Your task to perform on an android device: check out phone information Image 0: 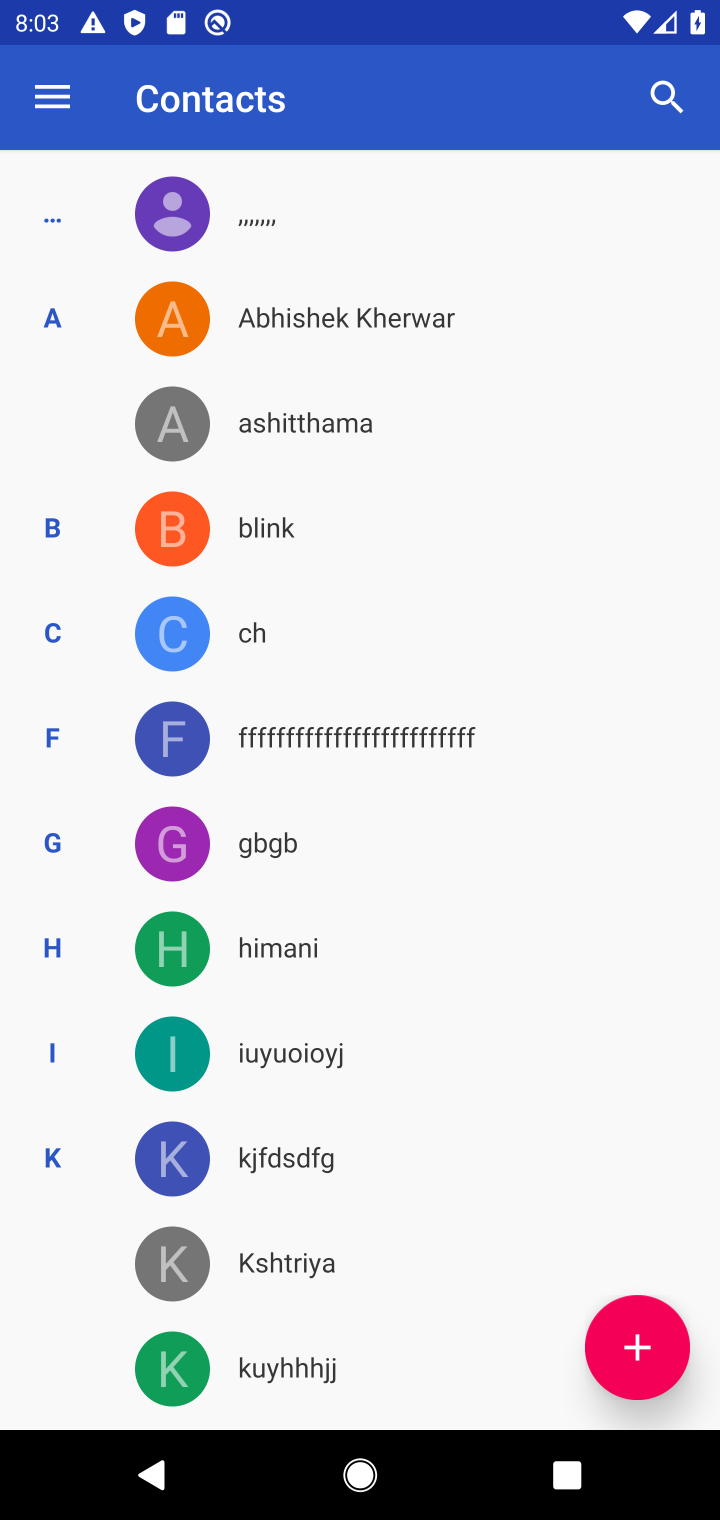
Step 0: press home button
Your task to perform on an android device: check out phone information Image 1: 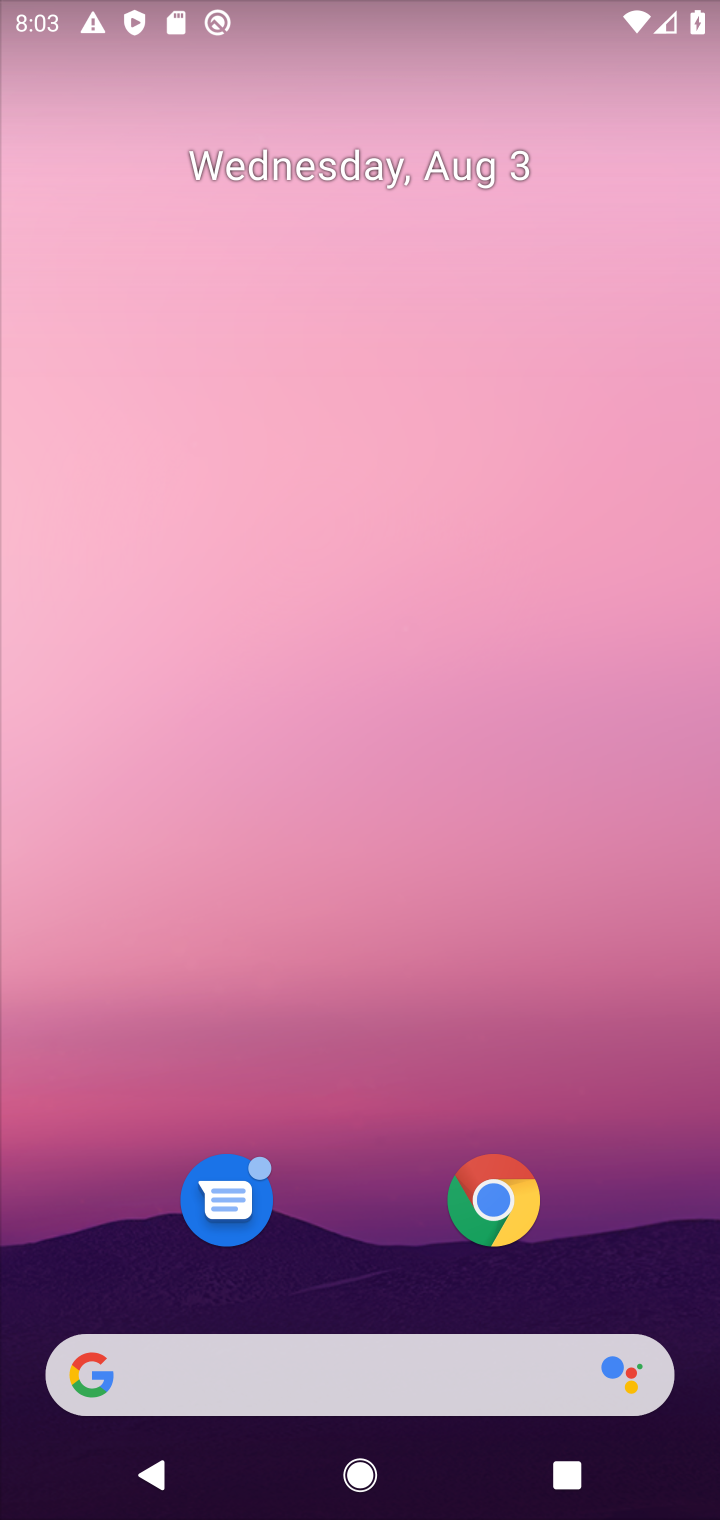
Step 1: drag from (639, 1262) to (516, 137)
Your task to perform on an android device: check out phone information Image 2: 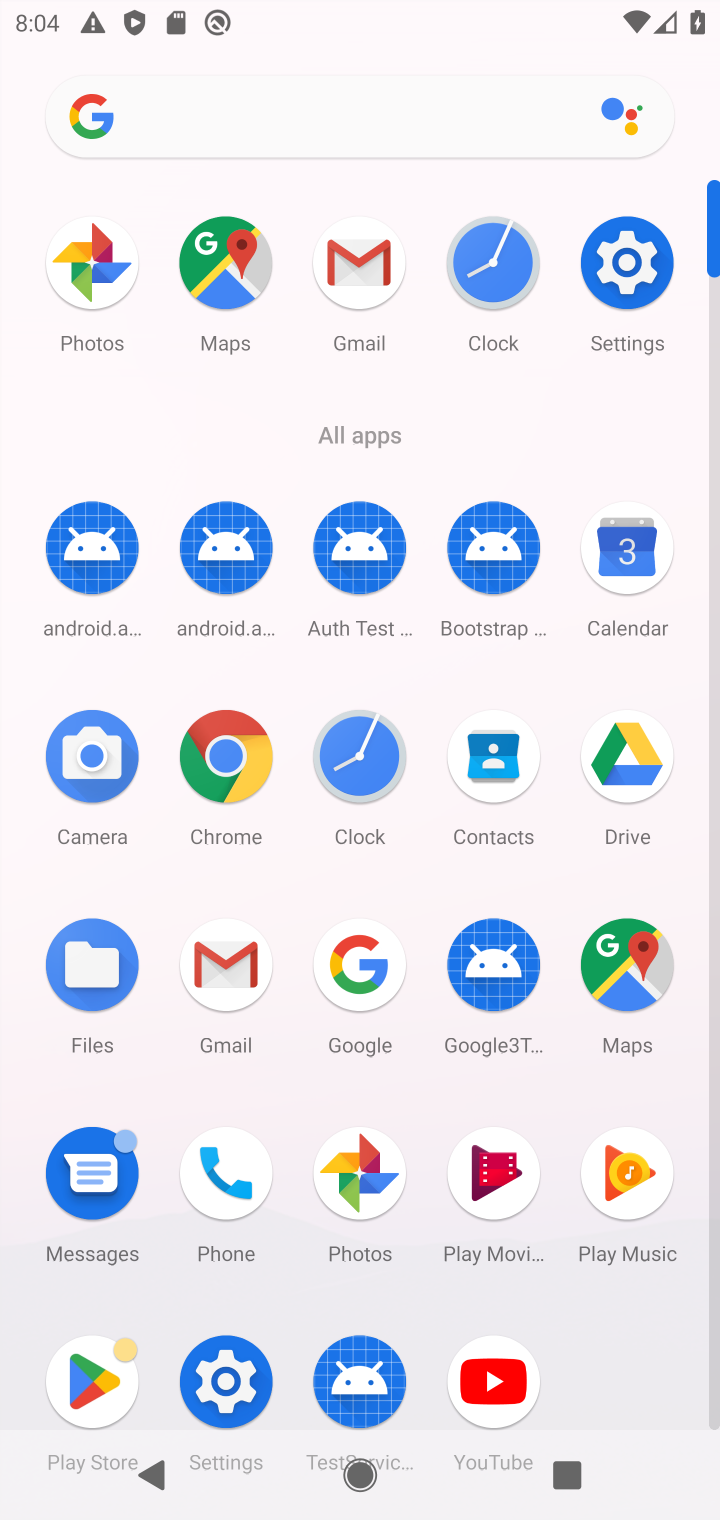
Step 2: click (228, 1381)
Your task to perform on an android device: check out phone information Image 3: 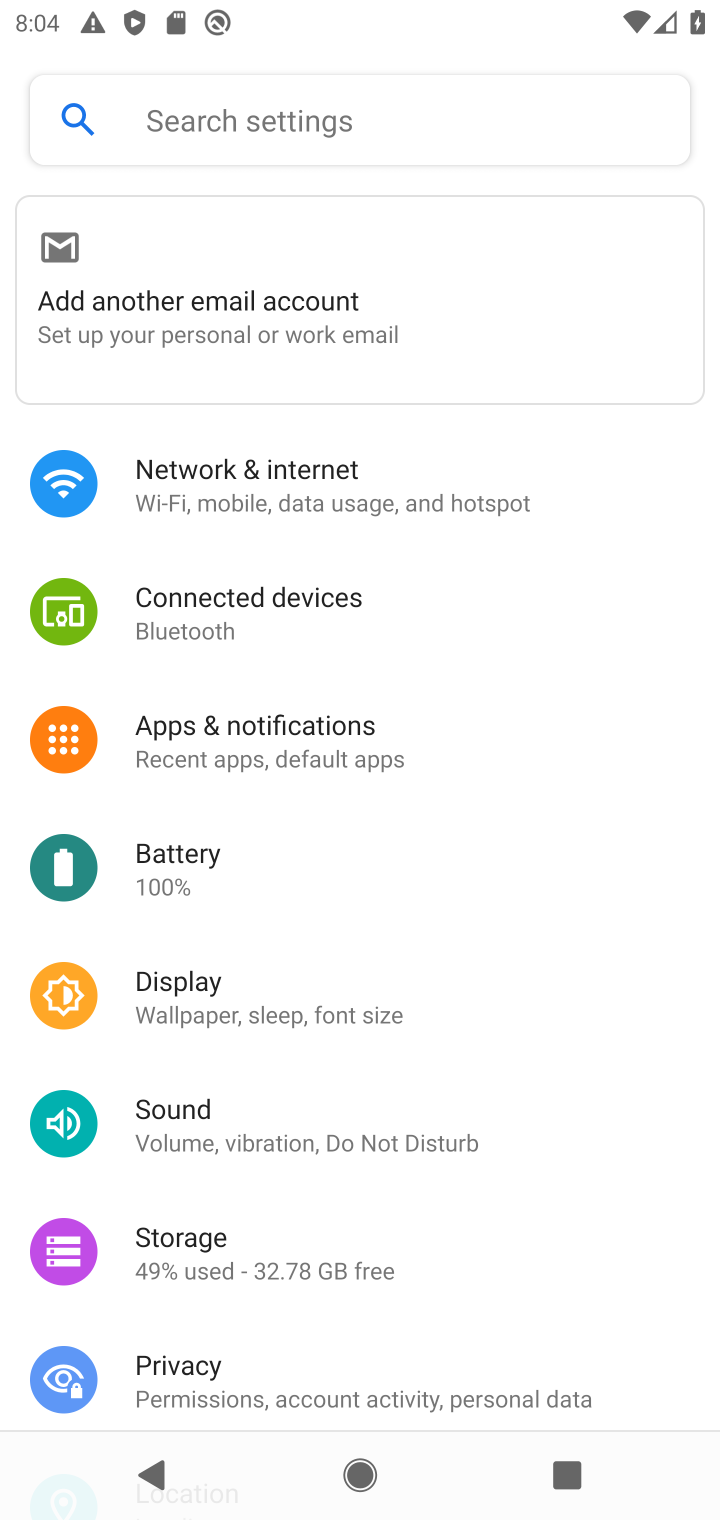
Step 3: drag from (569, 1351) to (526, 397)
Your task to perform on an android device: check out phone information Image 4: 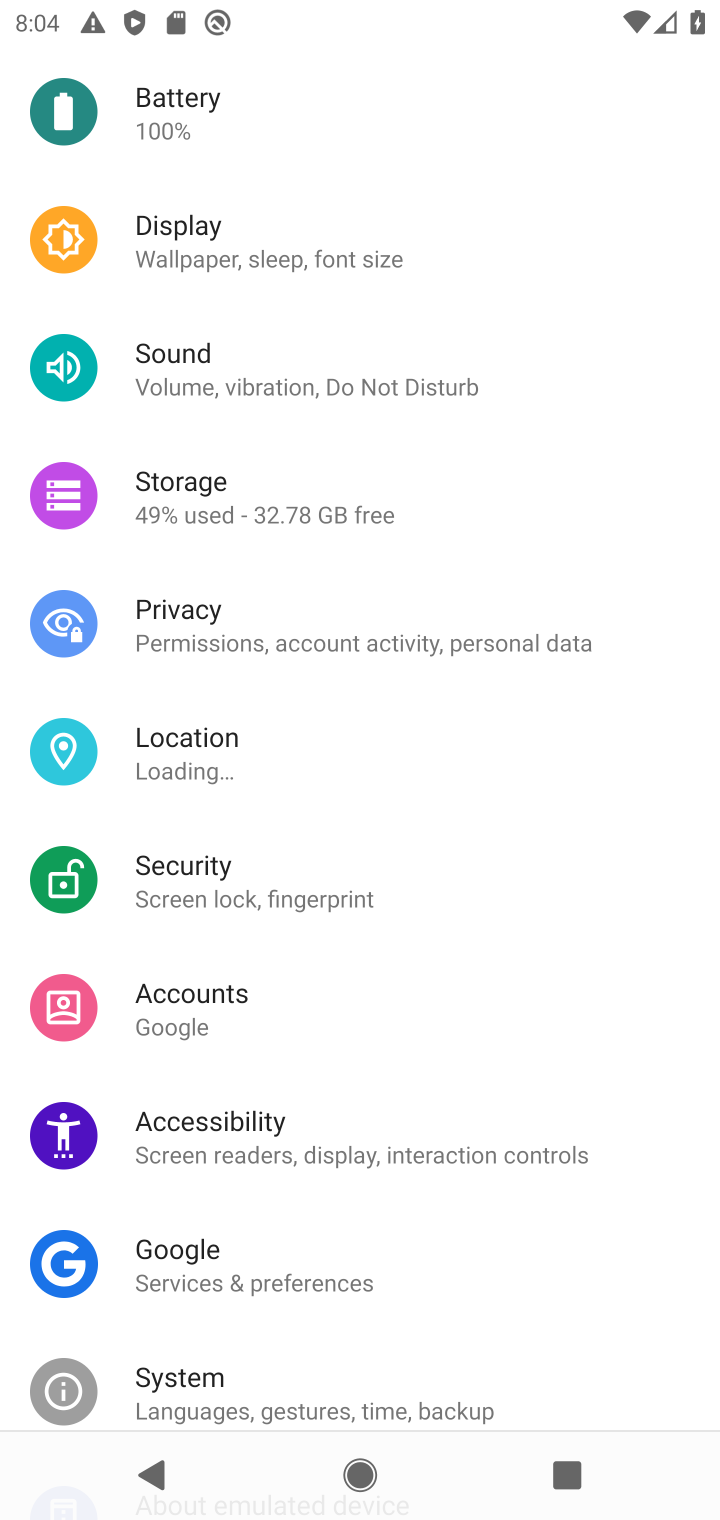
Step 4: drag from (511, 1349) to (508, 410)
Your task to perform on an android device: check out phone information Image 5: 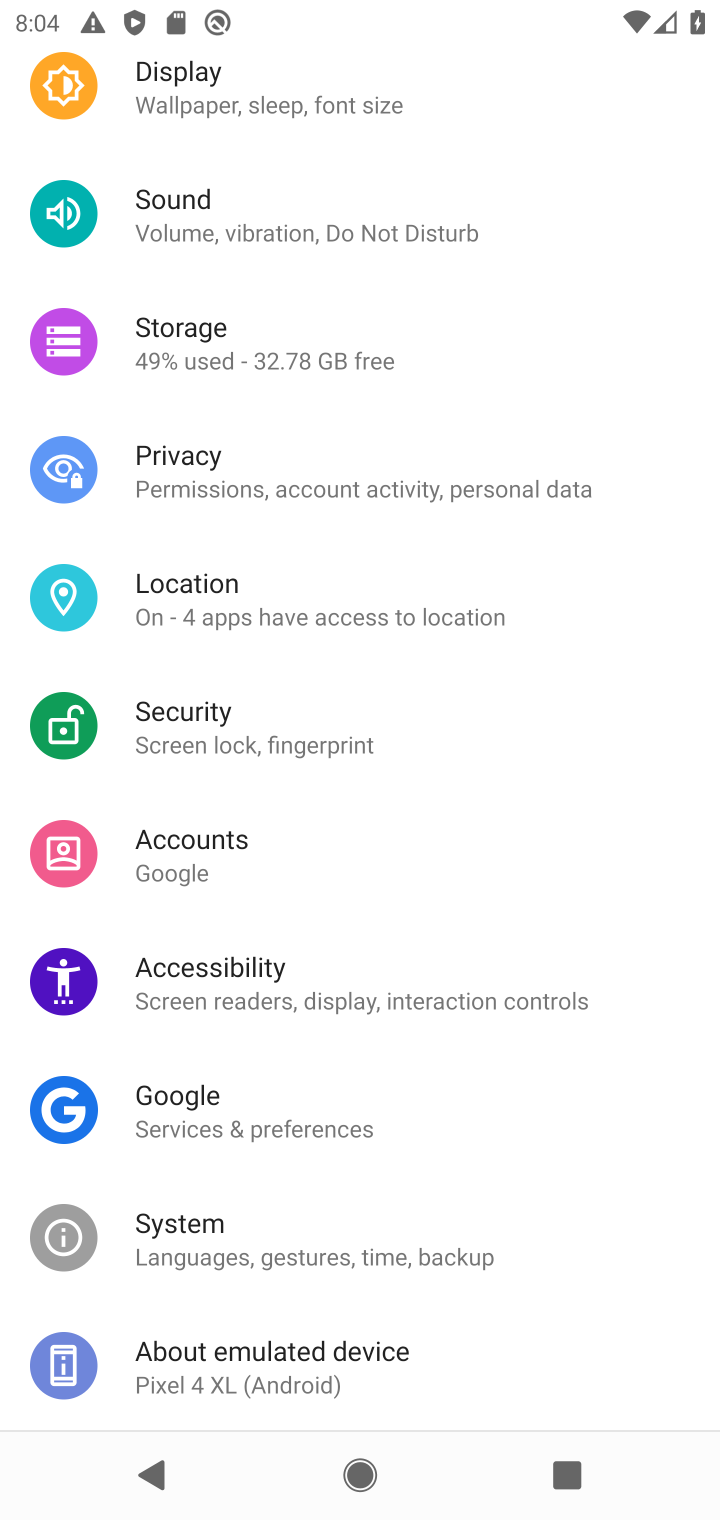
Step 5: click (190, 1349)
Your task to perform on an android device: check out phone information Image 6: 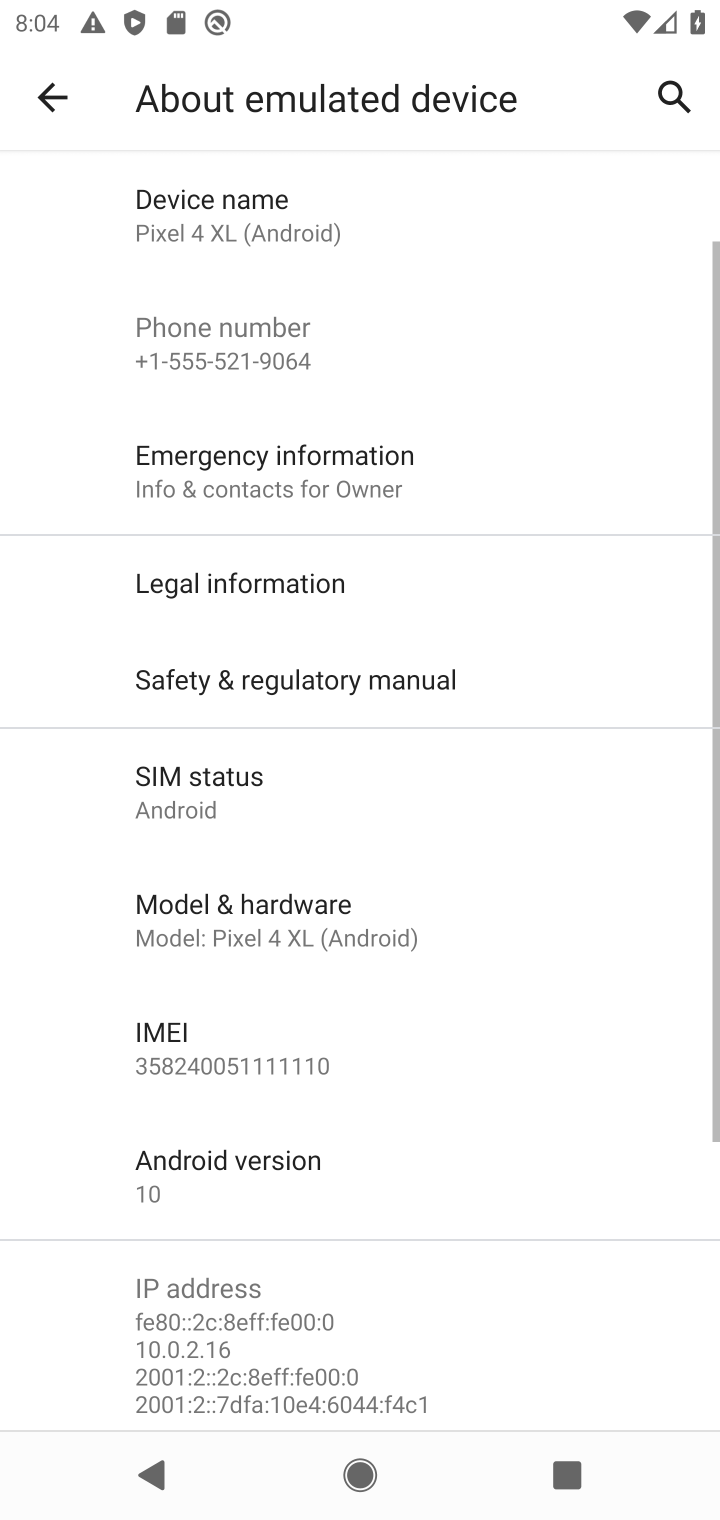
Step 6: task complete